Your task to perform on an android device: open chrome privacy settings Image 0: 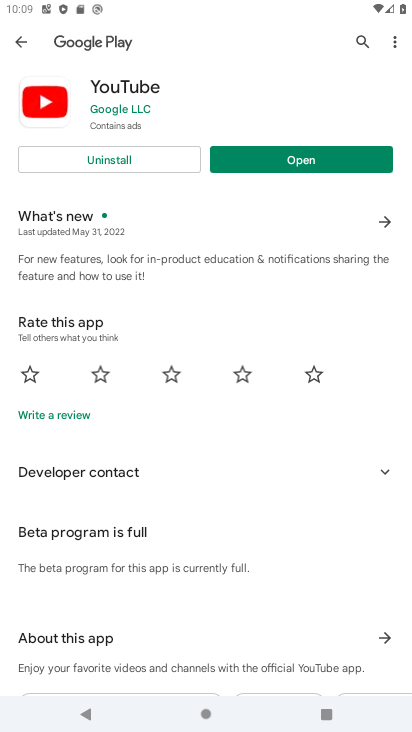
Step 0: press home button
Your task to perform on an android device: open chrome privacy settings Image 1: 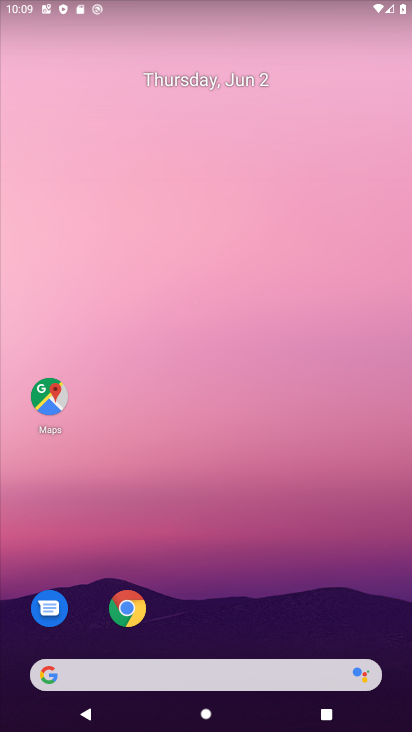
Step 1: click (120, 609)
Your task to perform on an android device: open chrome privacy settings Image 2: 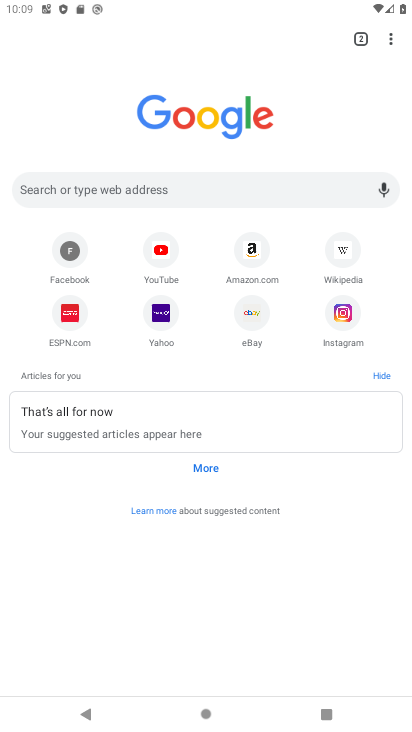
Step 2: drag from (388, 40) to (258, 325)
Your task to perform on an android device: open chrome privacy settings Image 3: 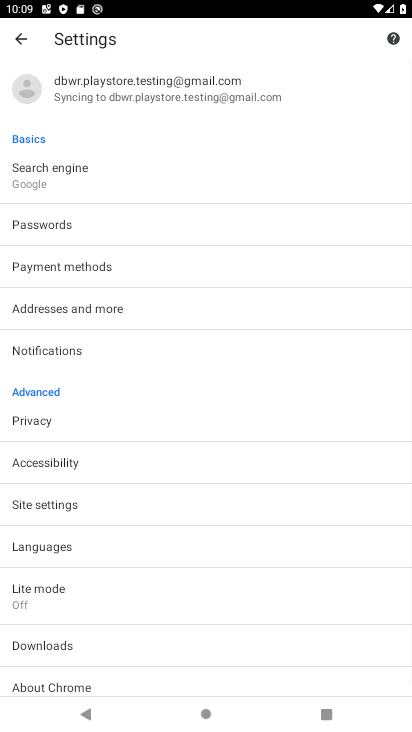
Step 3: click (101, 422)
Your task to perform on an android device: open chrome privacy settings Image 4: 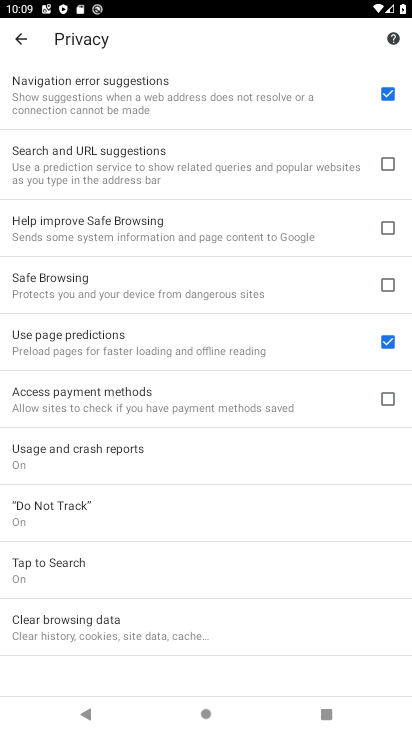
Step 4: task complete